Your task to perform on an android device: Go to internet settings Image 0: 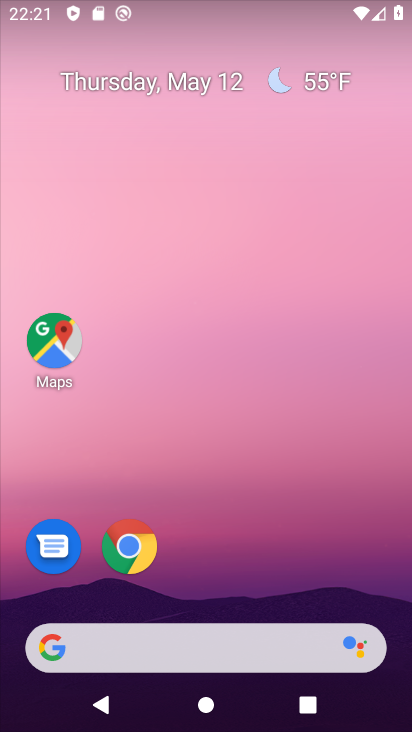
Step 0: drag from (221, 475) to (212, 206)
Your task to perform on an android device: Go to internet settings Image 1: 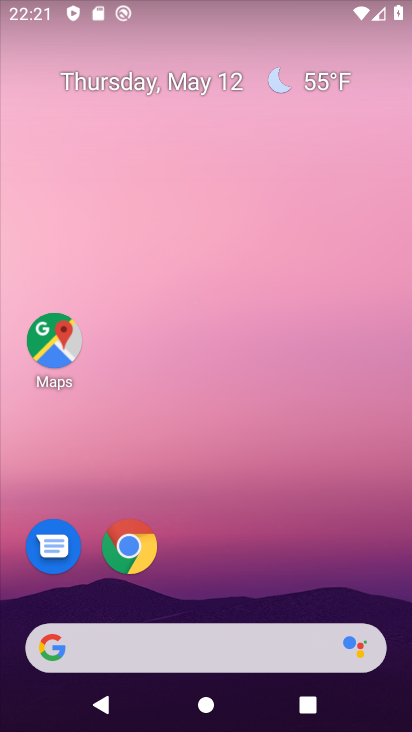
Step 1: drag from (206, 583) to (210, 242)
Your task to perform on an android device: Go to internet settings Image 2: 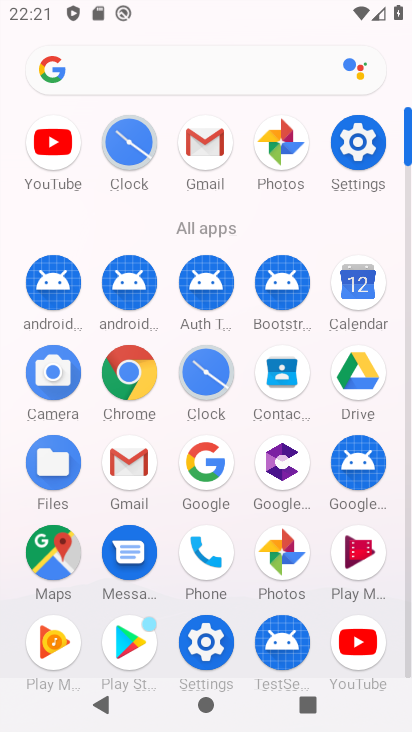
Step 2: click (360, 146)
Your task to perform on an android device: Go to internet settings Image 3: 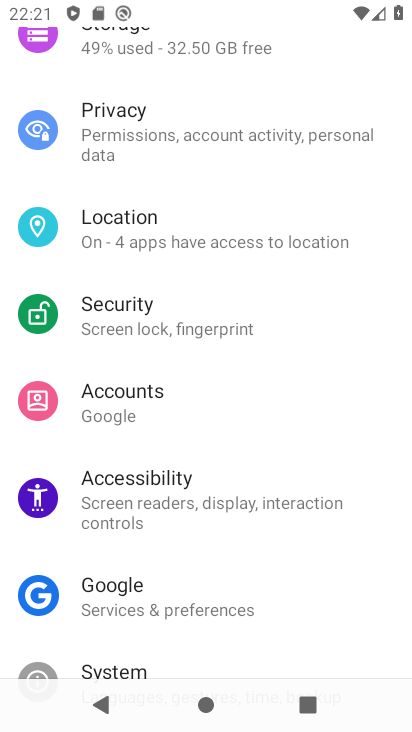
Step 3: drag from (218, 153) to (243, 593)
Your task to perform on an android device: Go to internet settings Image 4: 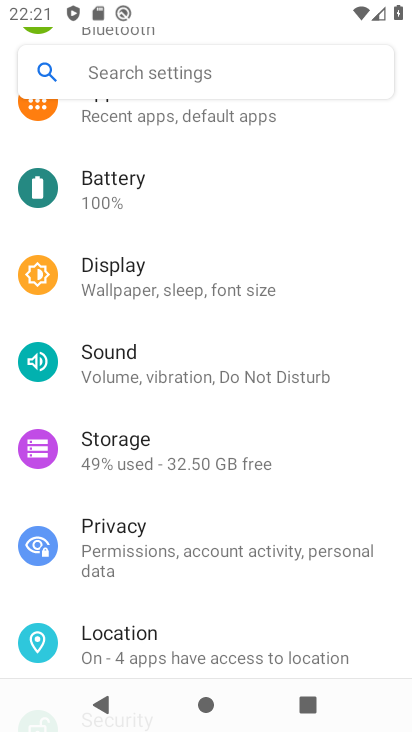
Step 4: drag from (234, 191) to (212, 458)
Your task to perform on an android device: Go to internet settings Image 5: 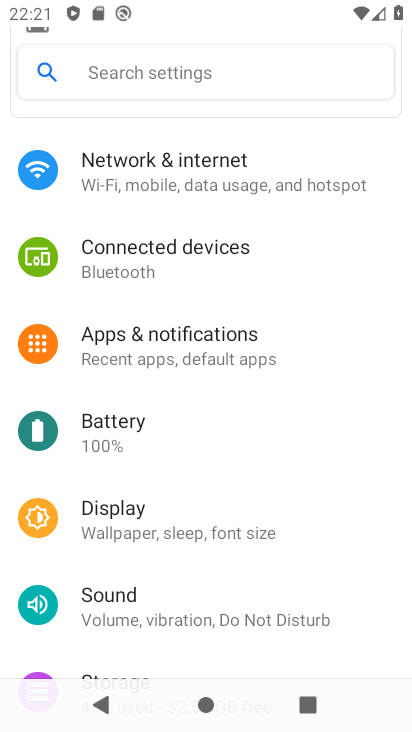
Step 5: click (190, 166)
Your task to perform on an android device: Go to internet settings Image 6: 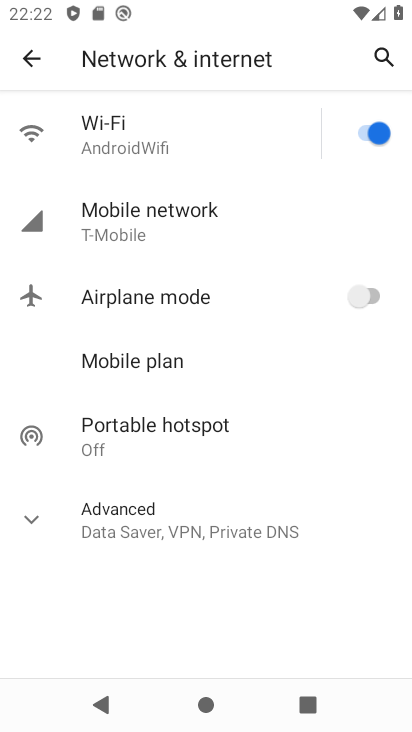
Step 6: task complete